Your task to perform on an android device: read, delete, or share a saved page in the chrome app Image 0: 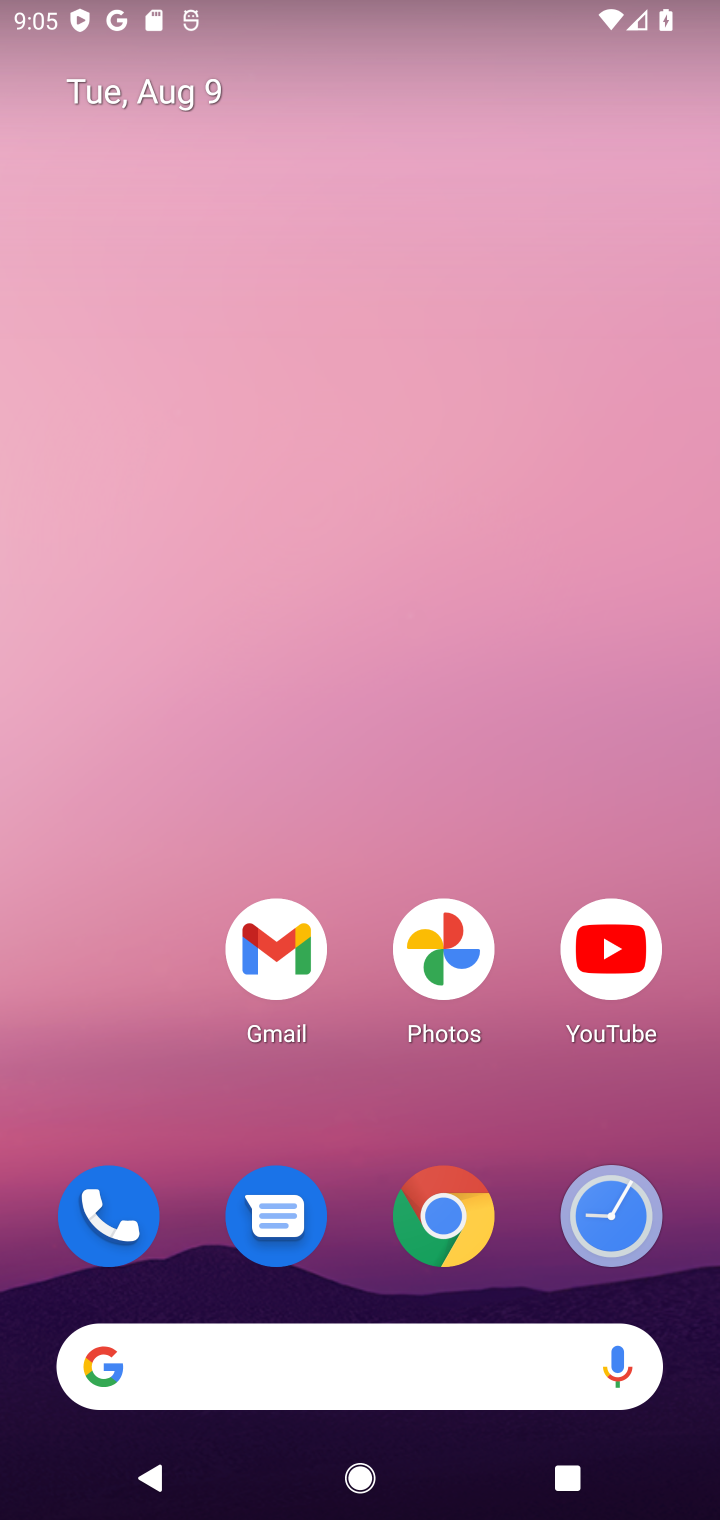
Step 0: click (432, 1214)
Your task to perform on an android device: read, delete, or share a saved page in the chrome app Image 1: 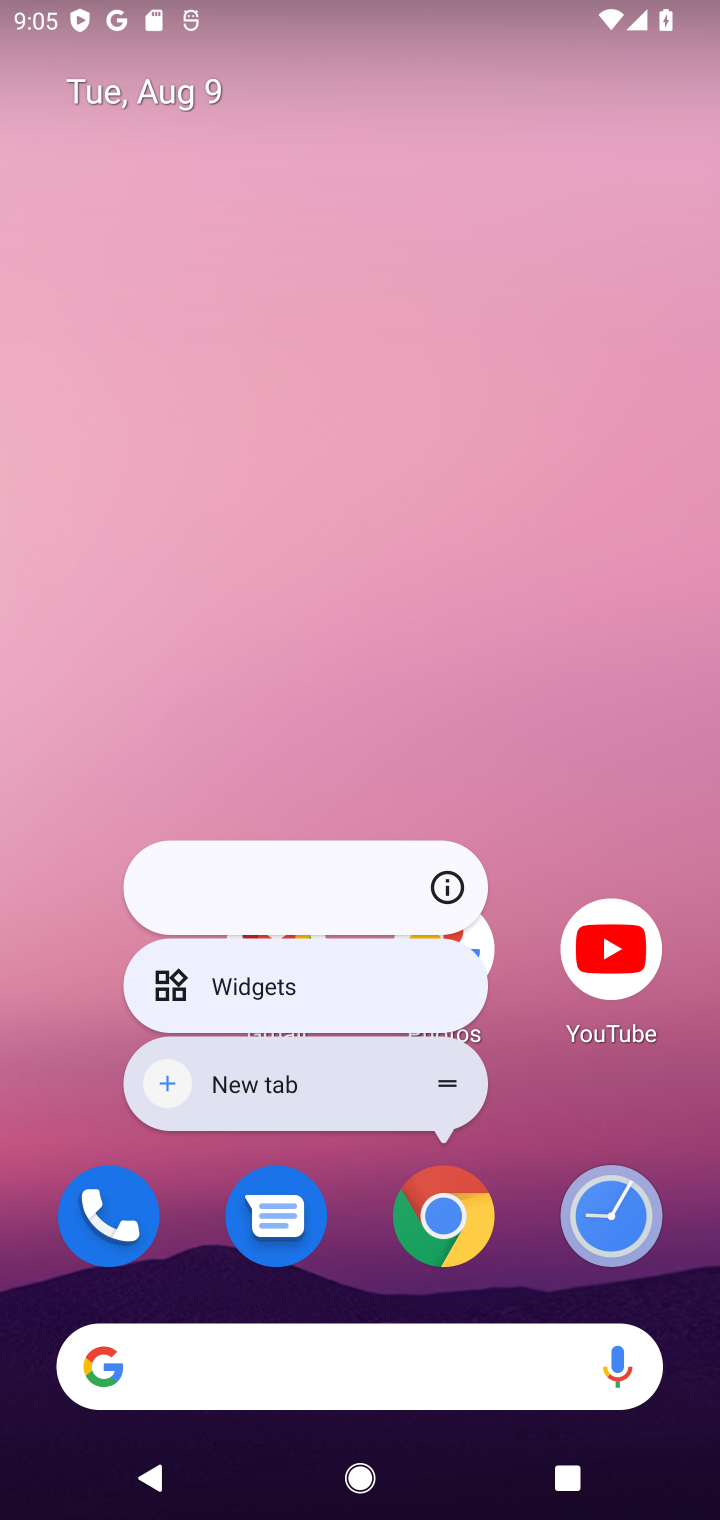
Step 1: click (432, 1214)
Your task to perform on an android device: read, delete, or share a saved page in the chrome app Image 2: 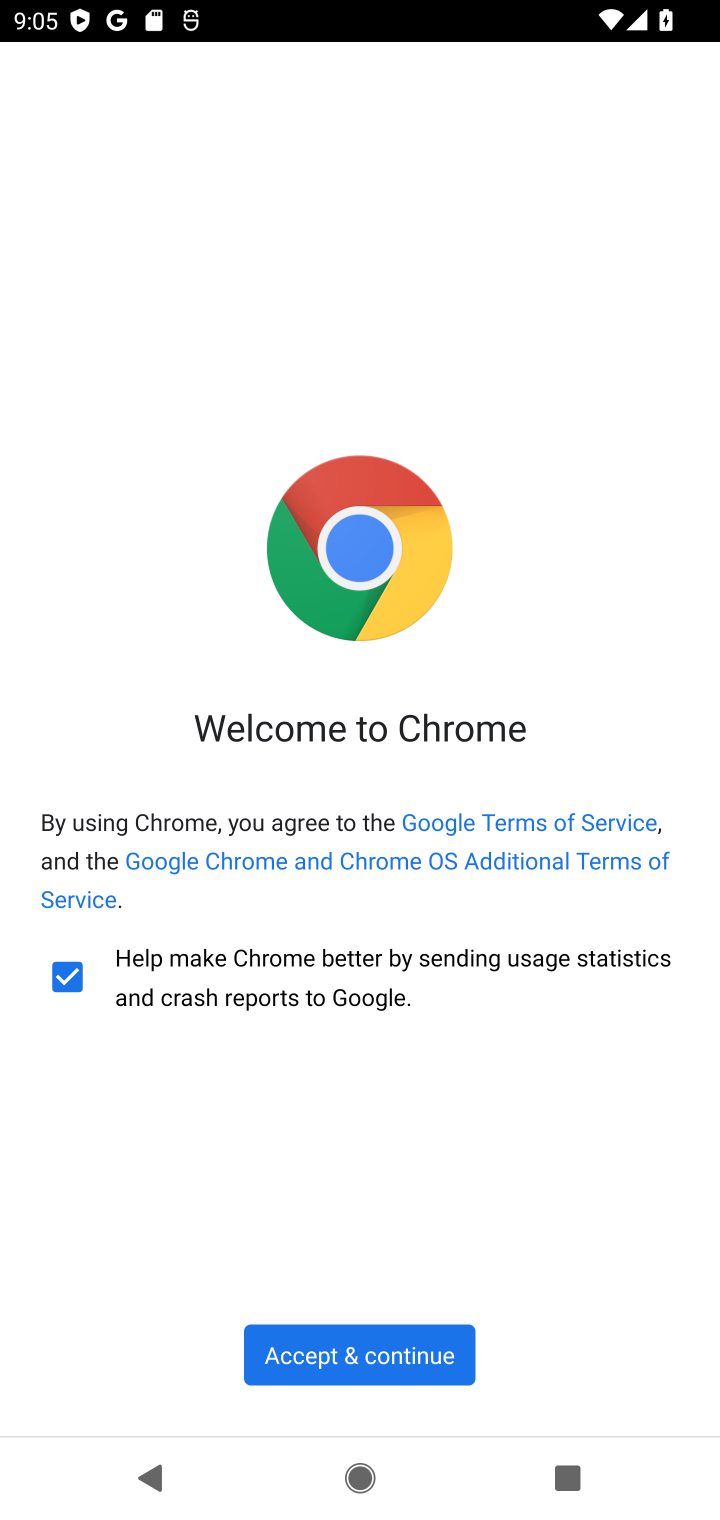
Step 2: click (409, 1352)
Your task to perform on an android device: read, delete, or share a saved page in the chrome app Image 3: 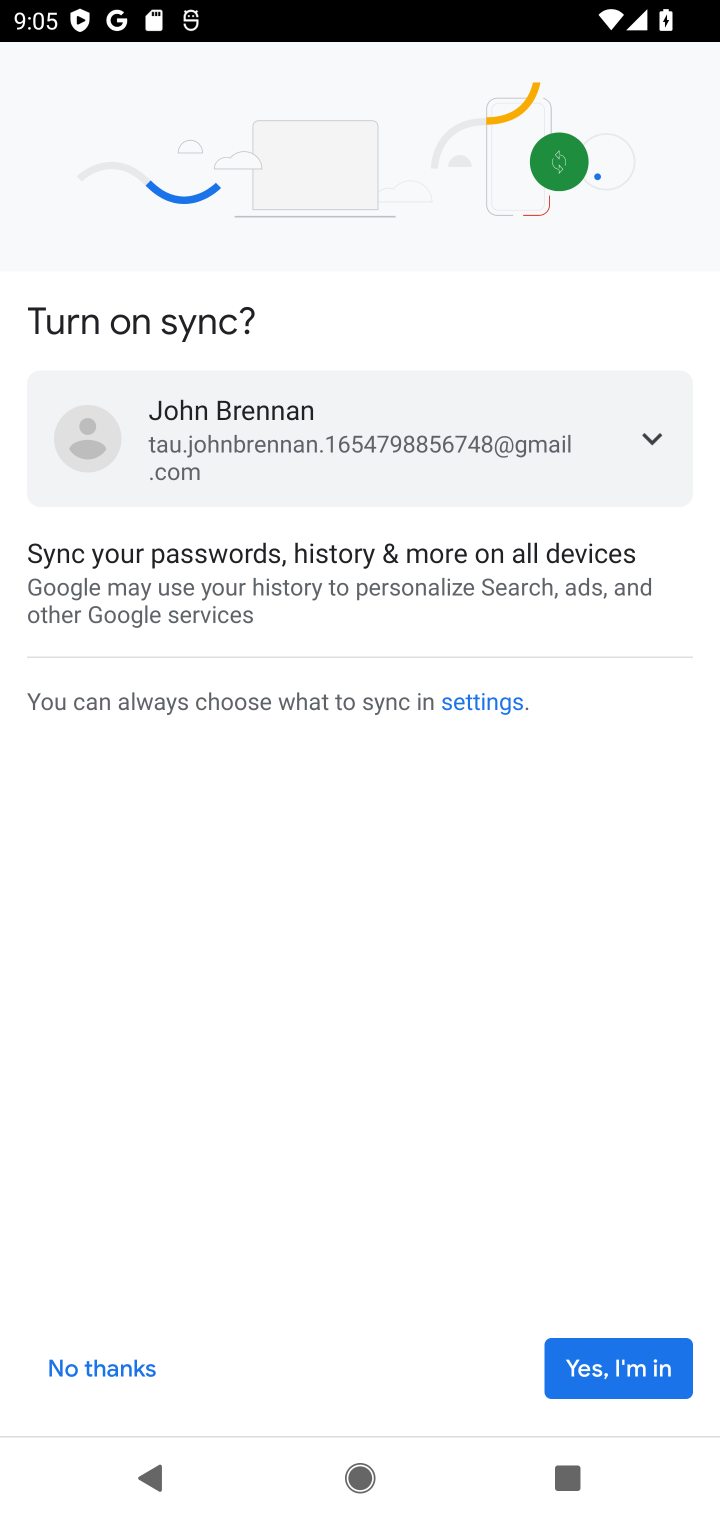
Step 3: click (621, 1369)
Your task to perform on an android device: read, delete, or share a saved page in the chrome app Image 4: 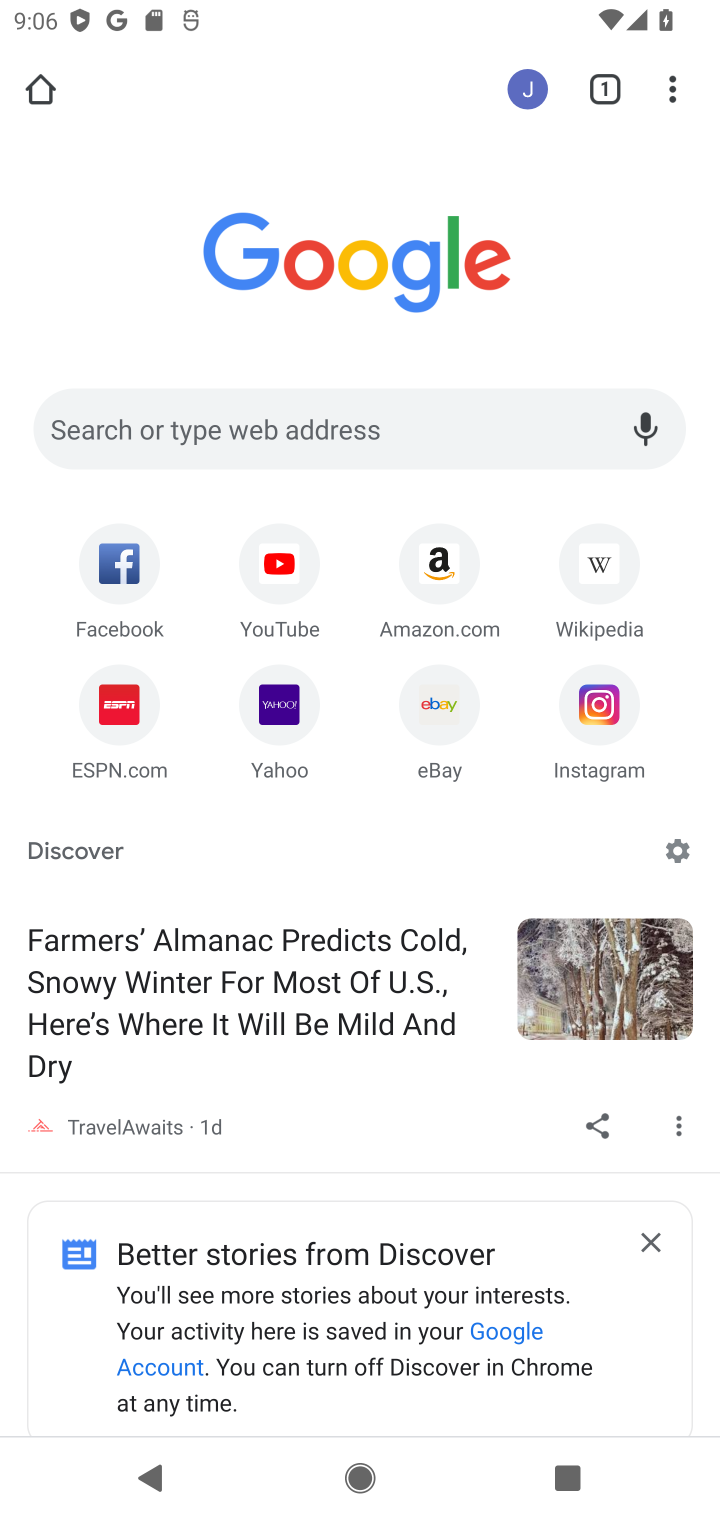
Step 4: click (669, 87)
Your task to perform on an android device: read, delete, or share a saved page in the chrome app Image 5: 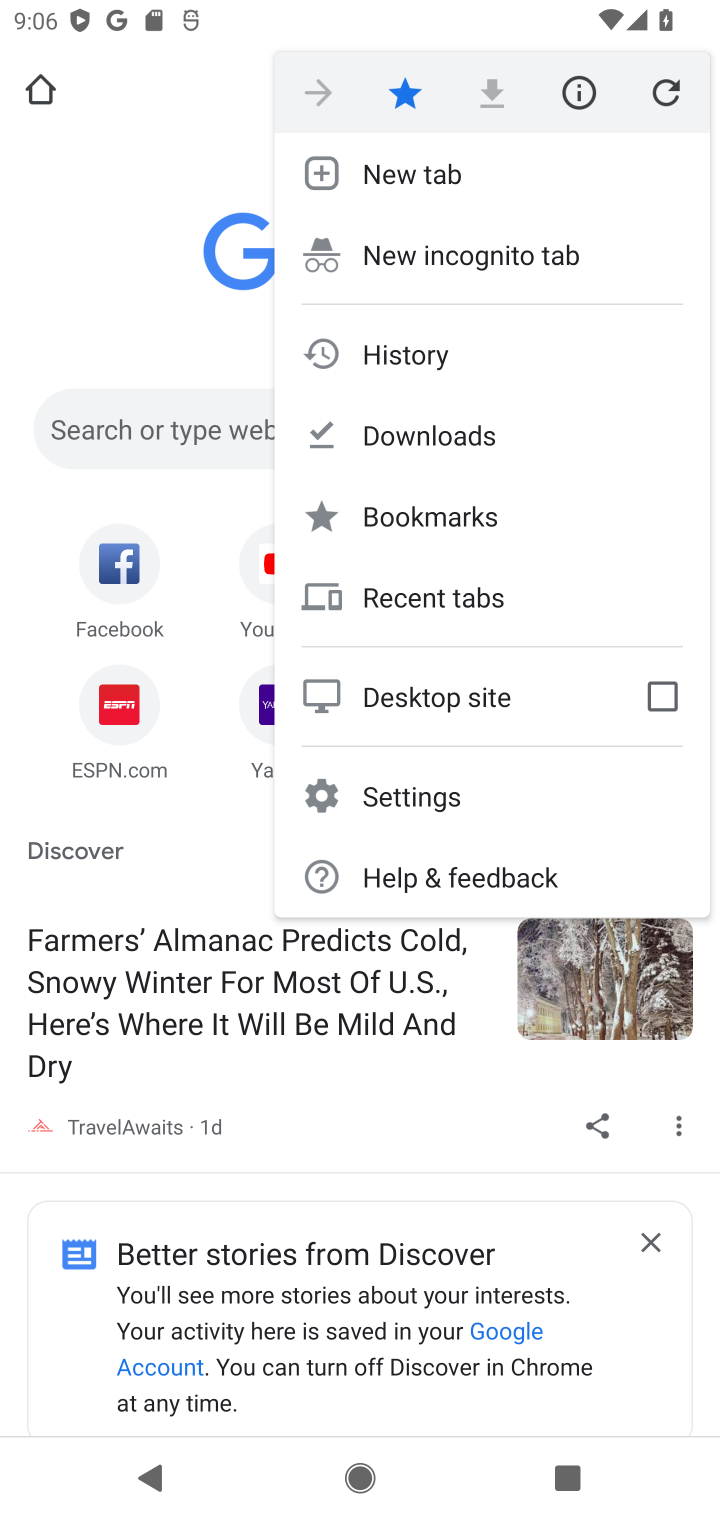
Step 5: click (411, 428)
Your task to perform on an android device: read, delete, or share a saved page in the chrome app Image 6: 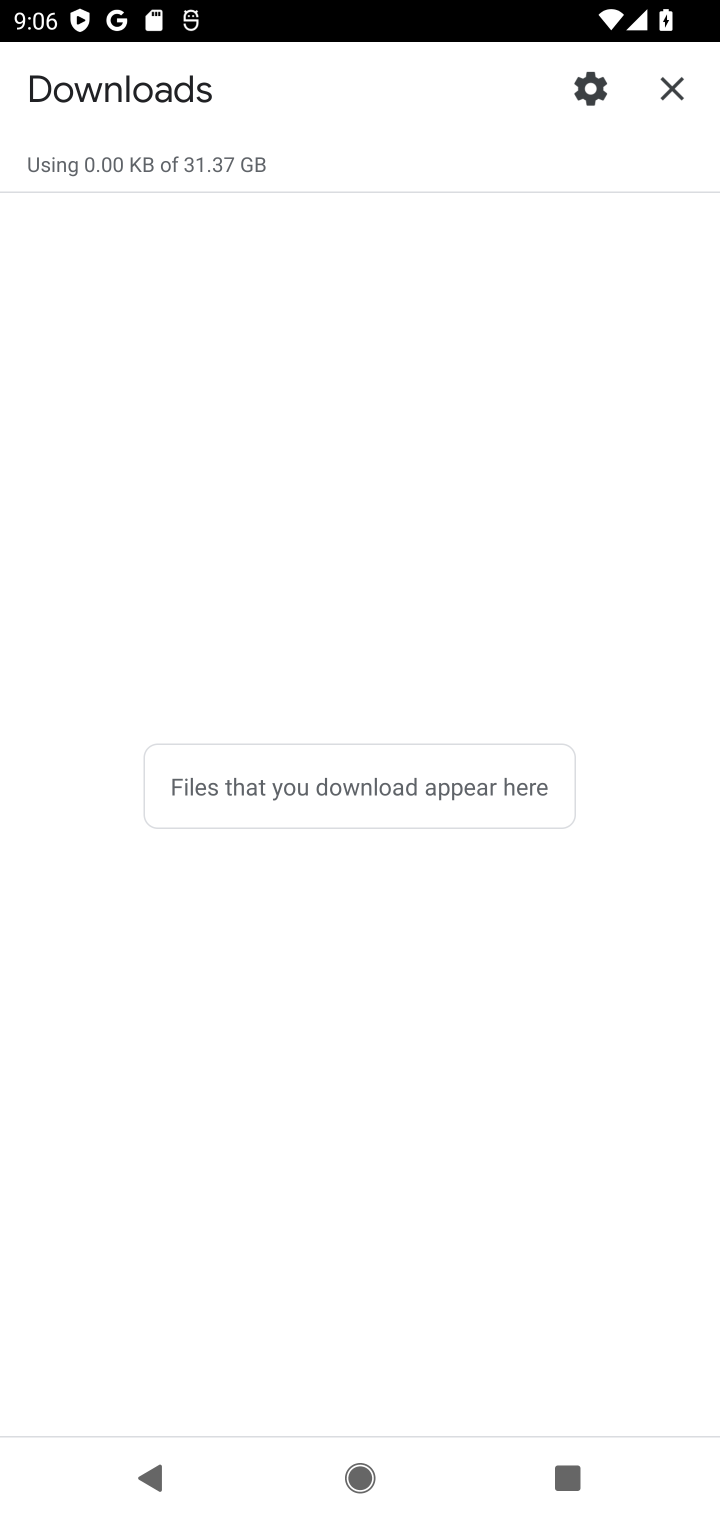
Step 6: task complete